Your task to perform on an android device: open chrome privacy settings Image 0: 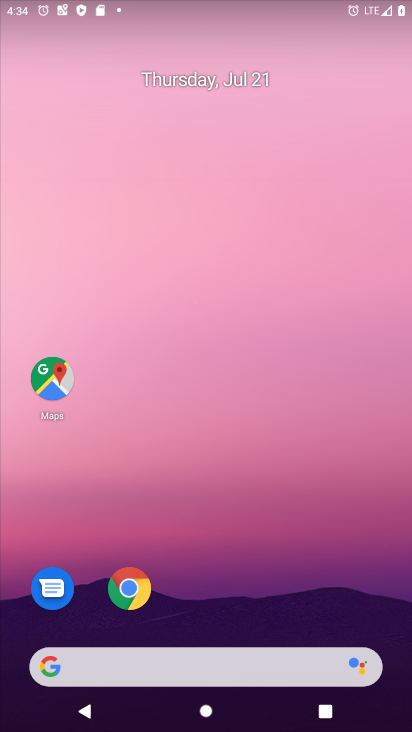
Step 0: drag from (250, 576) to (294, 122)
Your task to perform on an android device: open chrome privacy settings Image 1: 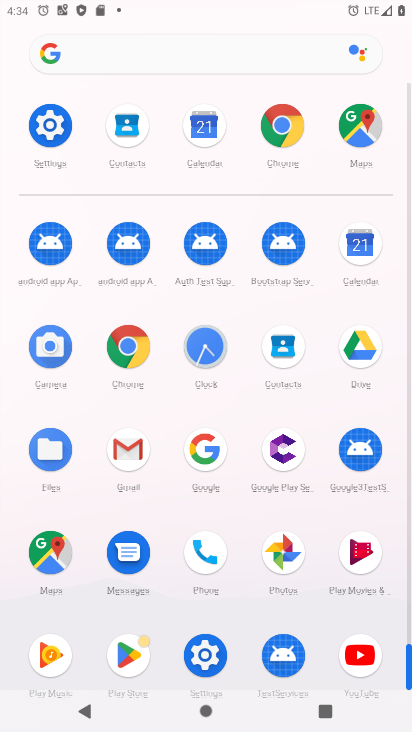
Step 1: click (277, 116)
Your task to perform on an android device: open chrome privacy settings Image 2: 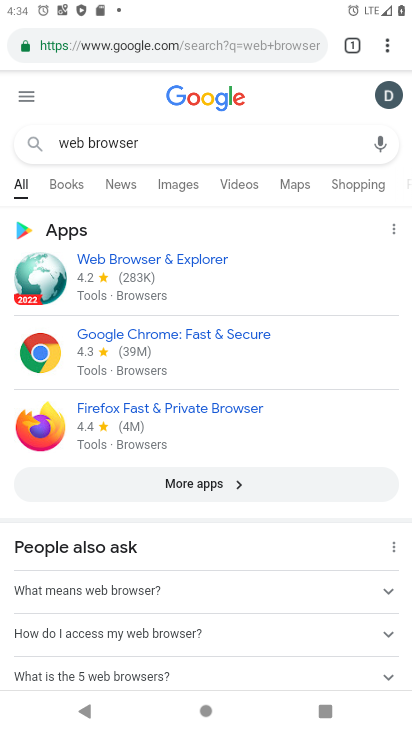
Step 2: drag from (383, 40) to (234, 503)
Your task to perform on an android device: open chrome privacy settings Image 3: 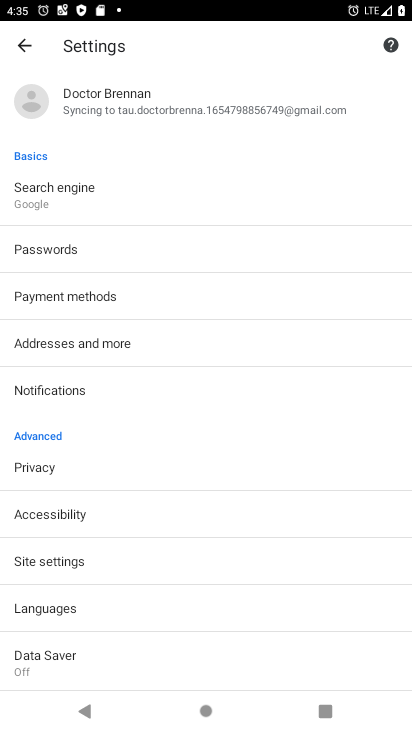
Step 3: click (52, 464)
Your task to perform on an android device: open chrome privacy settings Image 4: 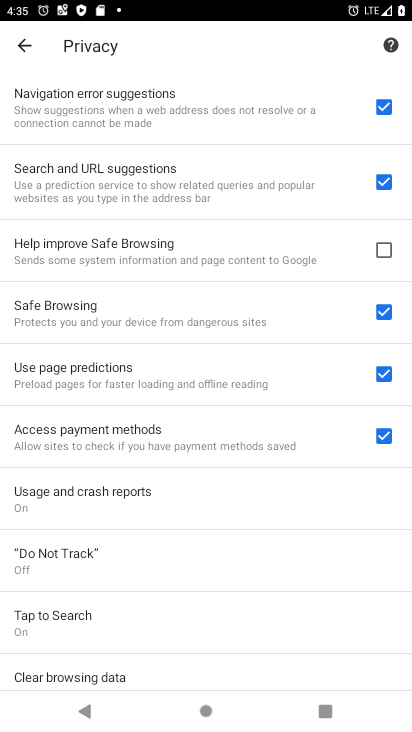
Step 4: task complete